Your task to perform on an android device: turn off improve location accuracy Image 0: 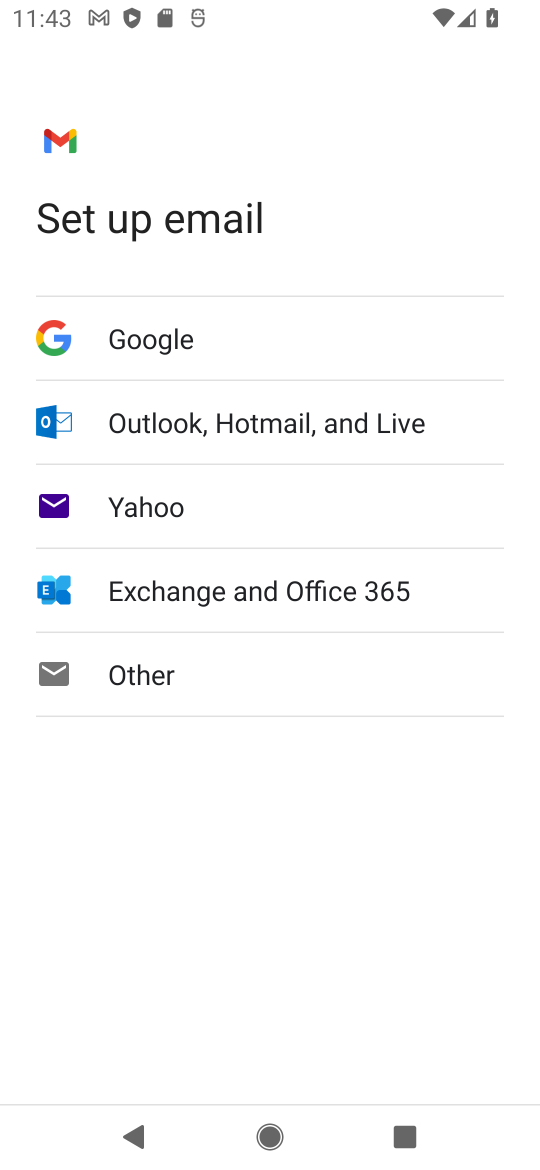
Step 0: press back button
Your task to perform on an android device: turn off improve location accuracy Image 1: 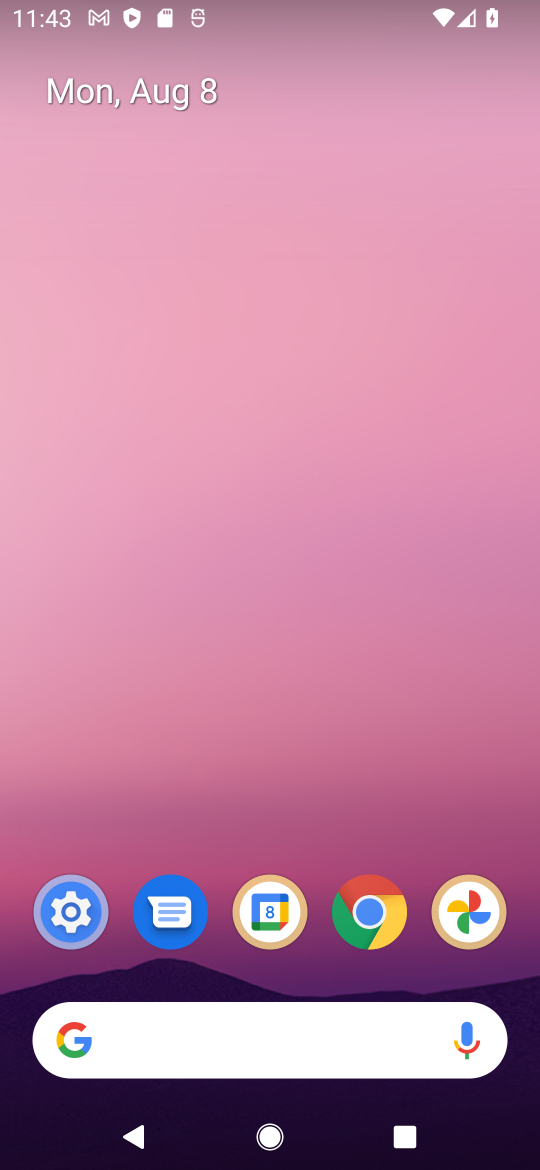
Step 1: click (79, 906)
Your task to perform on an android device: turn off improve location accuracy Image 2: 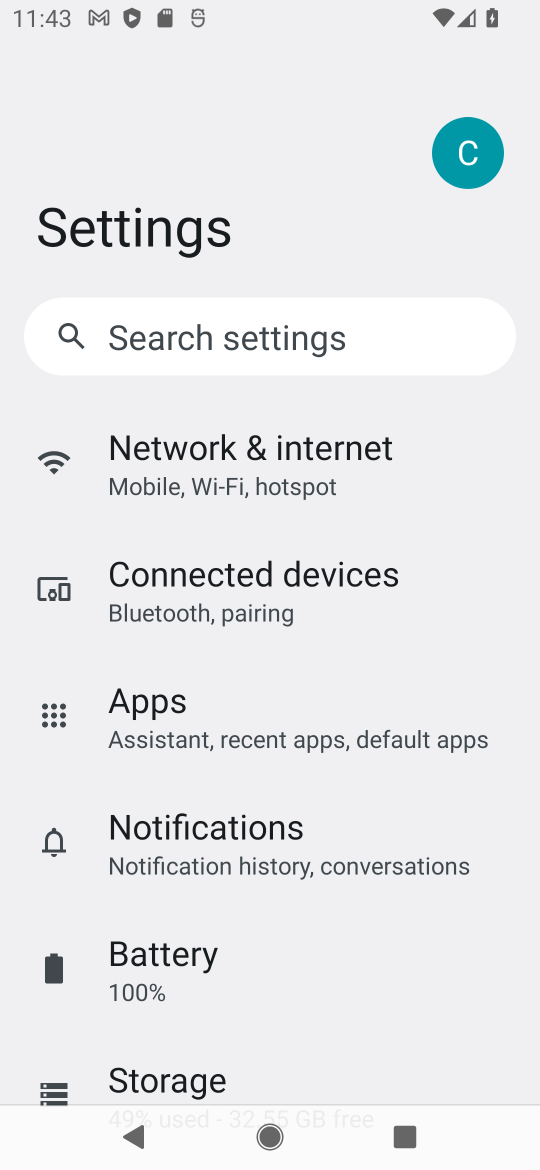
Step 2: drag from (317, 1033) to (495, 101)
Your task to perform on an android device: turn off improve location accuracy Image 3: 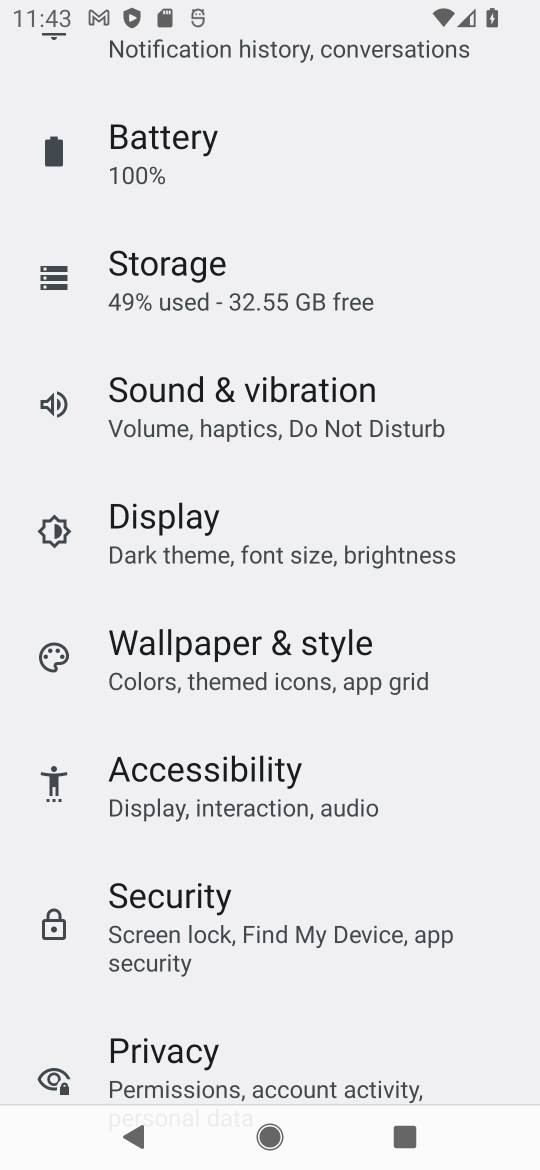
Step 3: drag from (246, 1043) to (372, 228)
Your task to perform on an android device: turn off improve location accuracy Image 4: 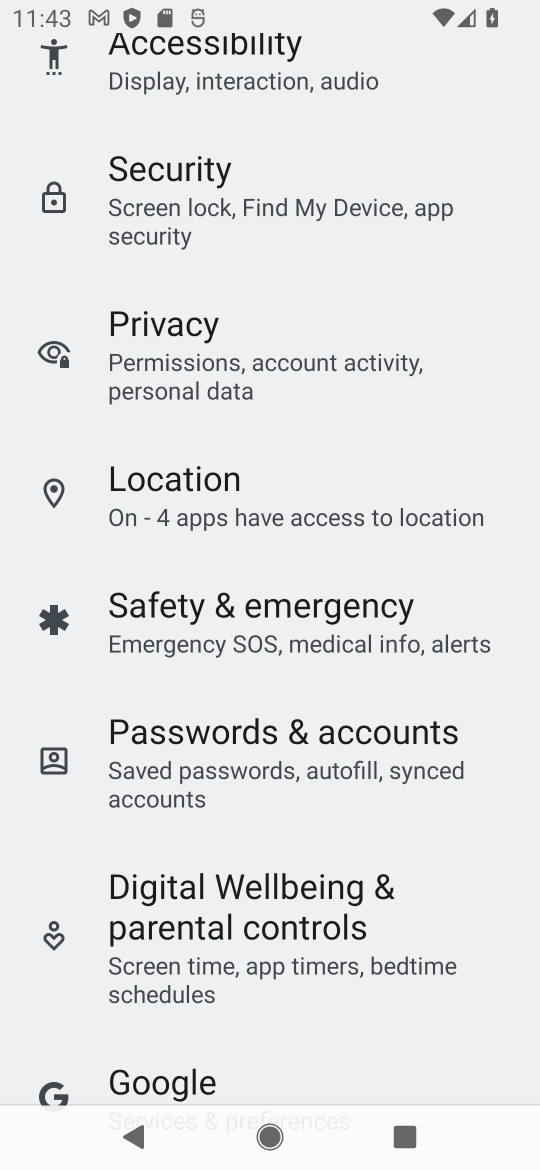
Step 4: click (174, 482)
Your task to perform on an android device: turn off improve location accuracy Image 5: 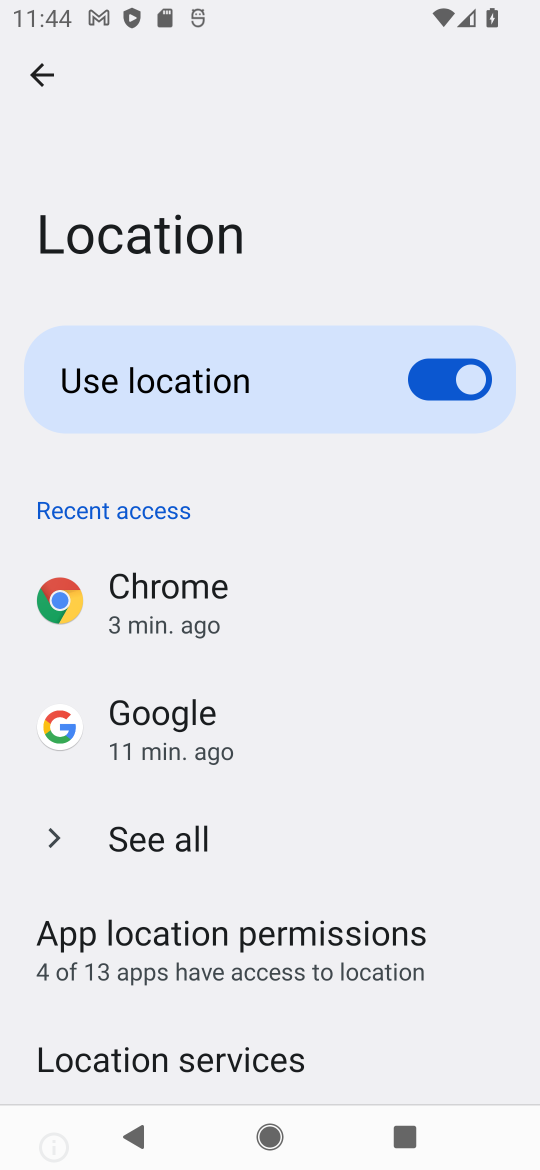
Step 5: drag from (175, 1060) to (454, 352)
Your task to perform on an android device: turn off improve location accuracy Image 6: 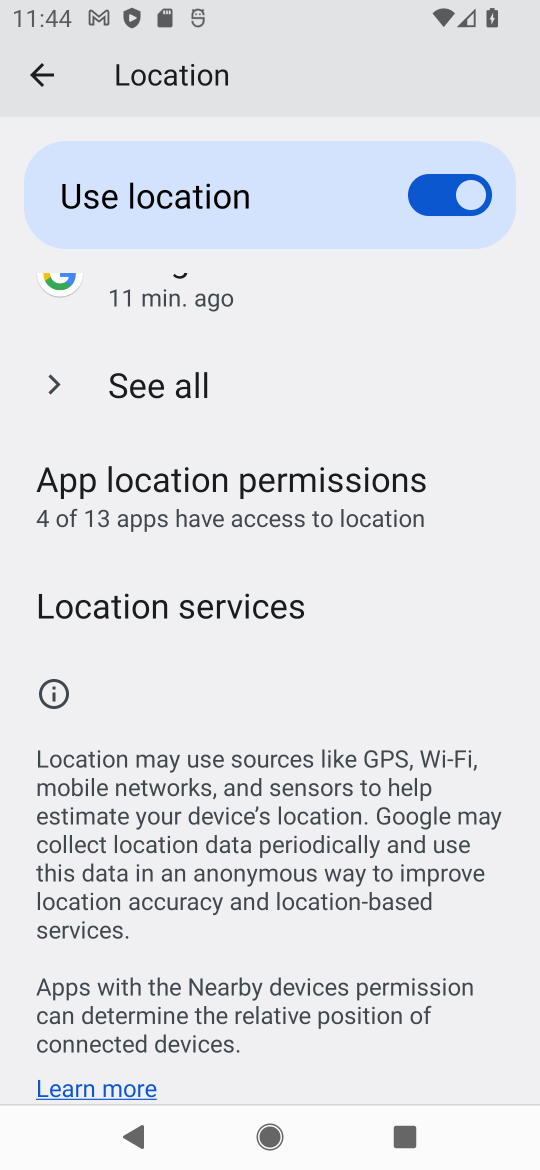
Step 6: click (154, 600)
Your task to perform on an android device: turn off improve location accuracy Image 7: 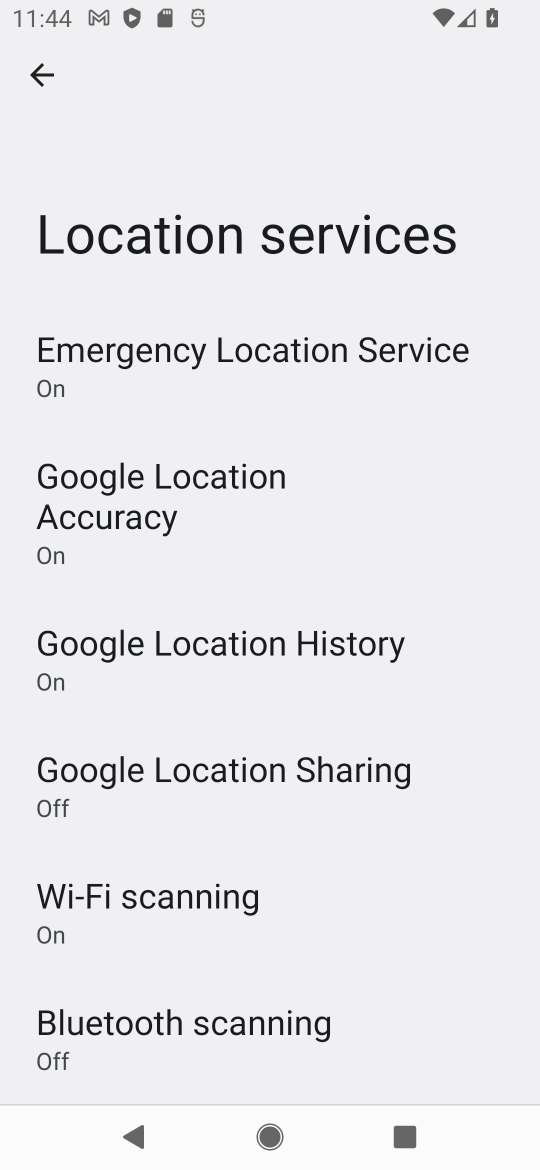
Step 7: click (231, 496)
Your task to perform on an android device: turn off improve location accuracy Image 8: 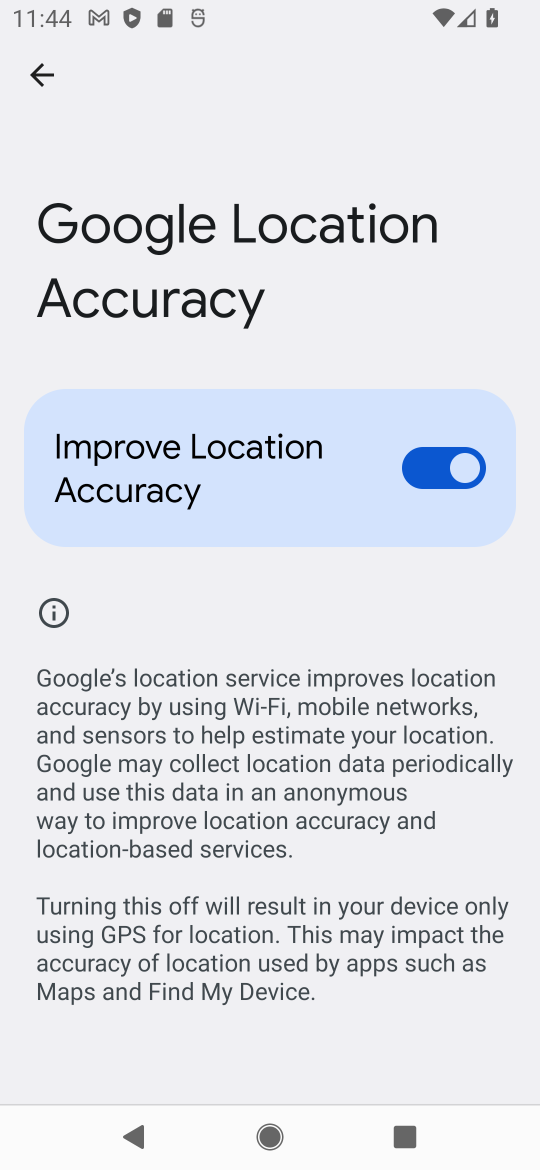
Step 8: click (460, 464)
Your task to perform on an android device: turn off improve location accuracy Image 9: 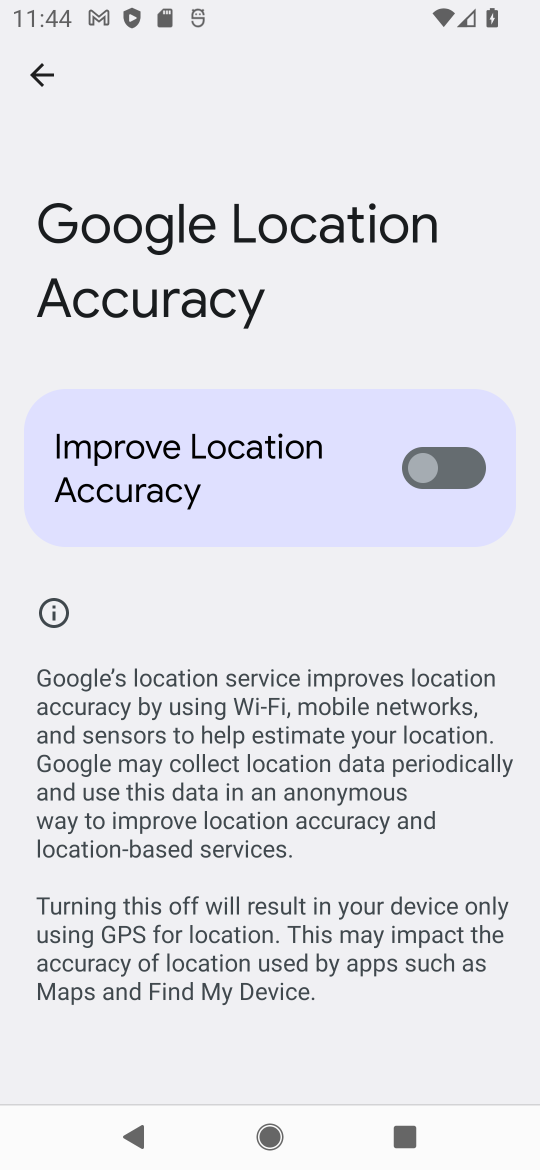
Step 9: task complete